Your task to perform on an android device: Go to Reddit.com Image 0: 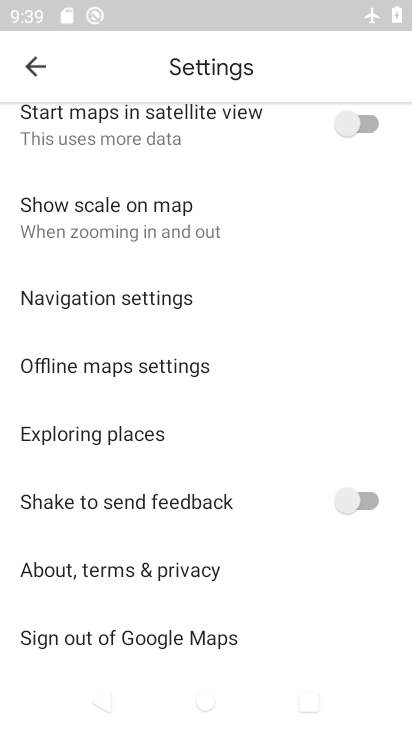
Step 0: press home button
Your task to perform on an android device: Go to Reddit.com Image 1: 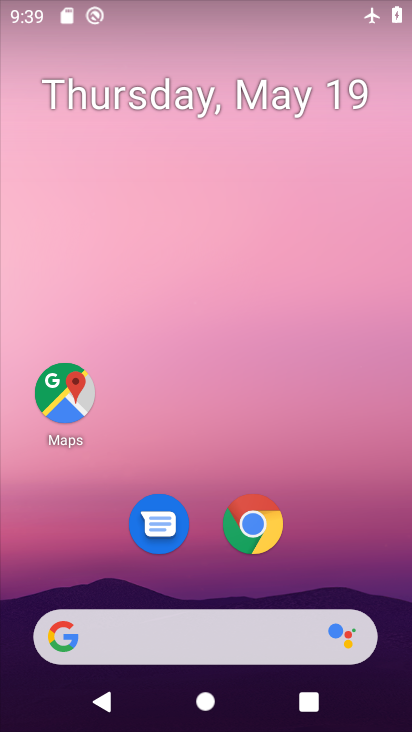
Step 1: click (275, 633)
Your task to perform on an android device: Go to Reddit.com Image 2: 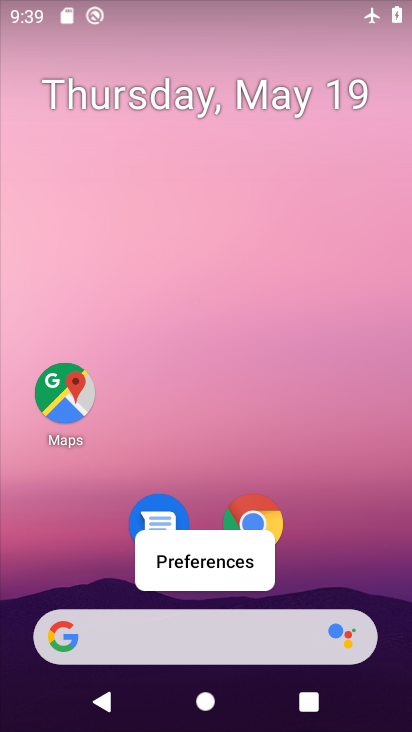
Step 2: click (267, 640)
Your task to perform on an android device: Go to Reddit.com Image 3: 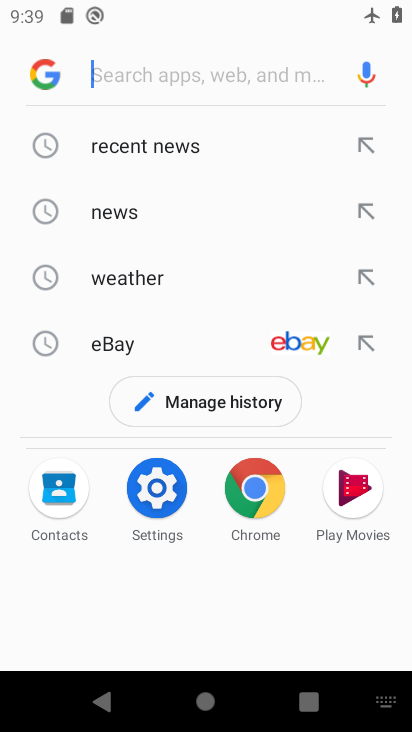
Step 3: type "reddit.com"
Your task to perform on an android device: Go to Reddit.com Image 4: 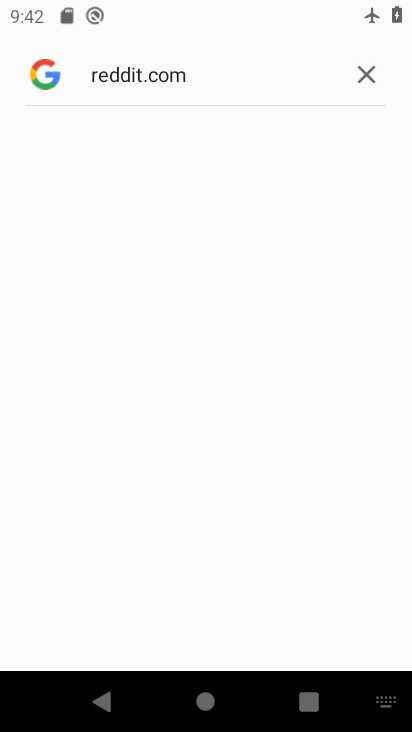
Step 4: task complete